Your task to perform on an android device: change keyboard looks Image 0: 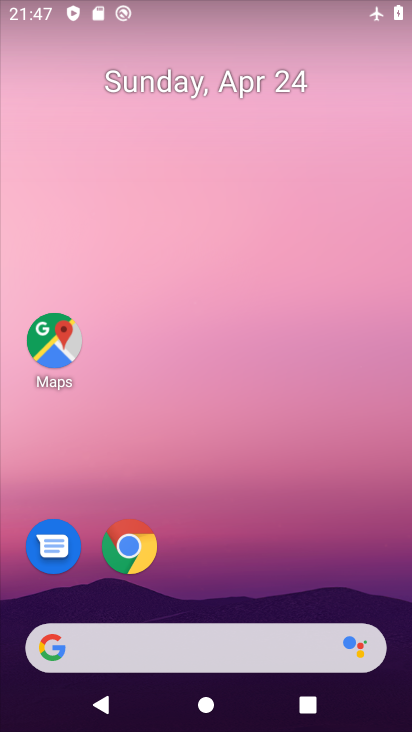
Step 0: click (288, 190)
Your task to perform on an android device: change keyboard looks Image 1: 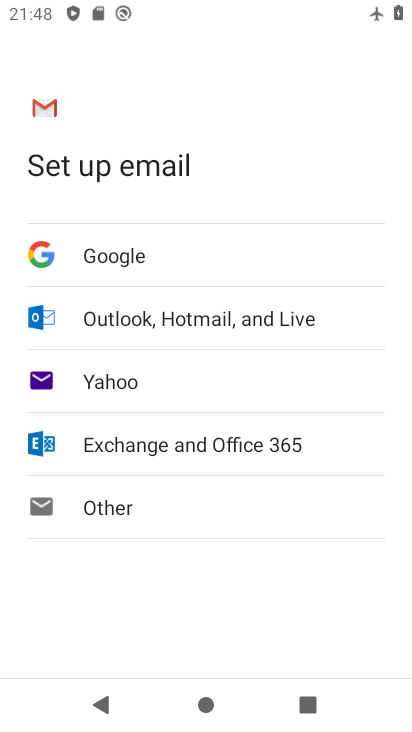
Step 1: press home button
Your task to perform on an android device: change keyboard looks Image 2: 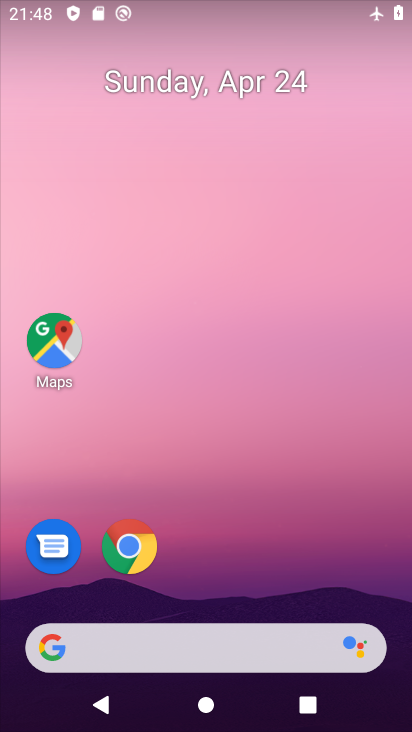
Step 2: drag from (251, 573) to (155, 79)
Your task to perform on an android device: change keyboard looks Image 3: 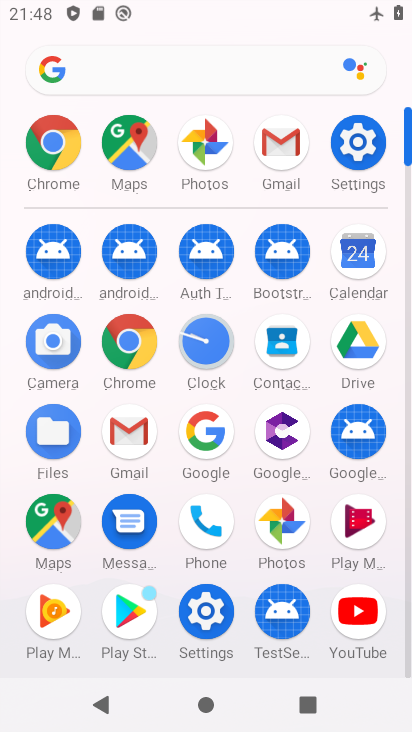
Step 3: click (360, 142)
Your task to perform on an android device: change keyboard looks Image 4: 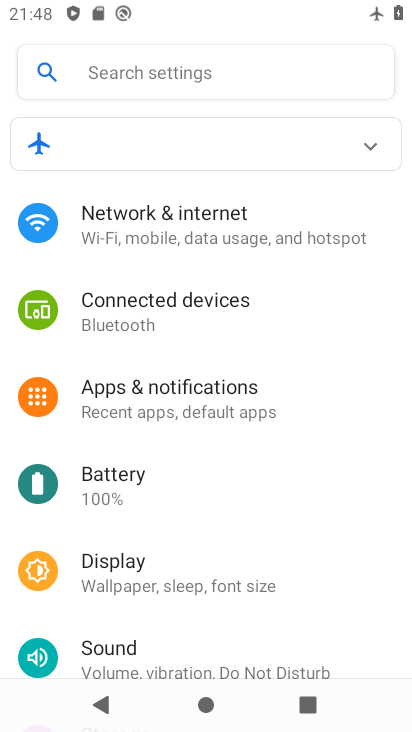
Step 4: drag from (212, 521) to (242, 220)
Your task to perform on an android device: change keyboard looks Image 5: 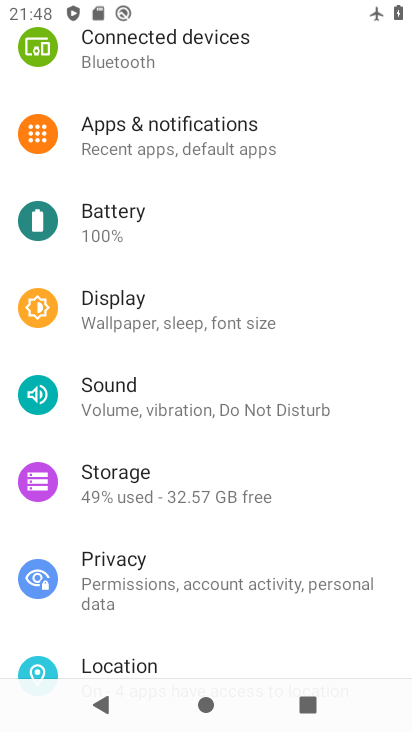
Step 5: drag from (202, 556) to (237, 165)
Your task to perform on an android device: change keyboard looks Image 6: 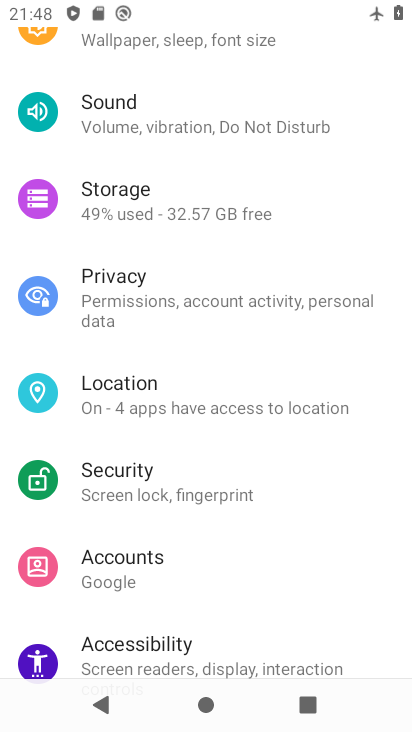
Step 6: drag from (156, 591) to (229, 218)
Your task to perform on an android device: change keyboard looks Image 7: 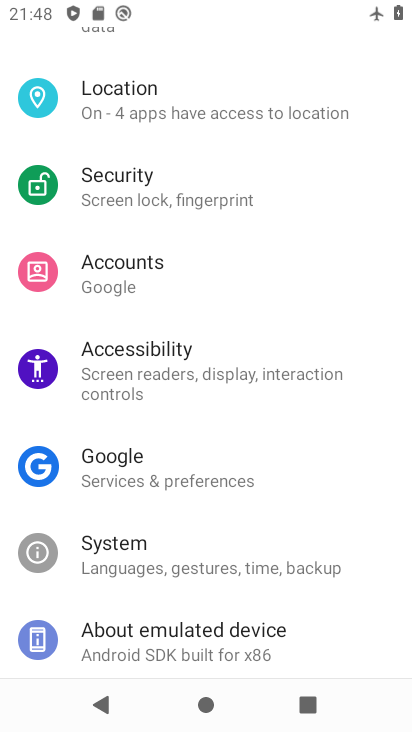
Step 7: click (160, 647)
Your task to perform on an android device: change keyboard looks Image 8: 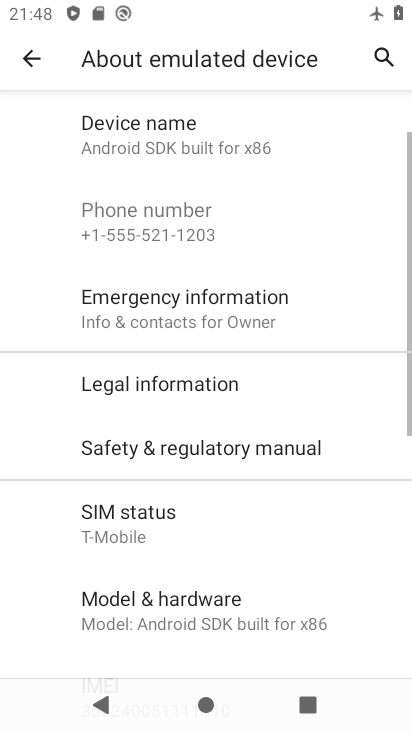
Step 8: click (35, 54)
Your task to perform on an android device: change keyboard looks Image 9: 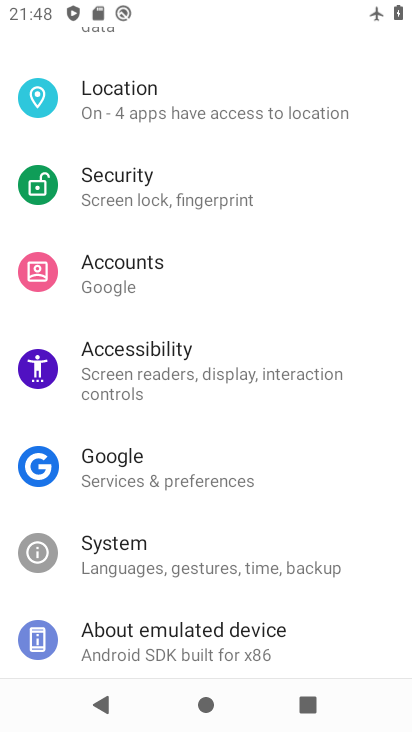
Step 9: click (145, 556)
Your task to perform on an android device: change keyboard looks Image 10: 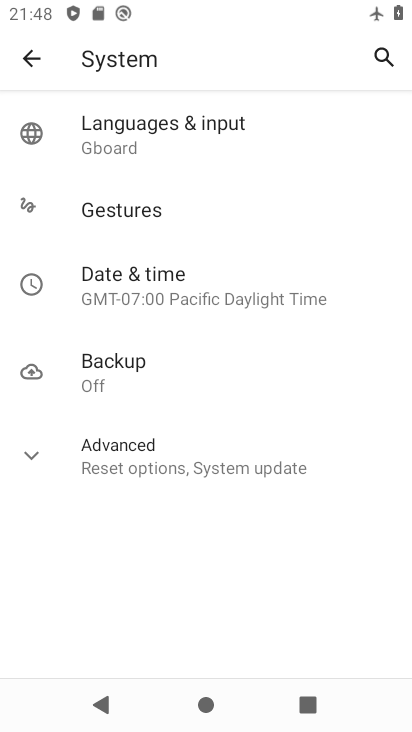
Step 10: click (185, 135)
Your task to perform on an android device: change keyboard looks Image 11: 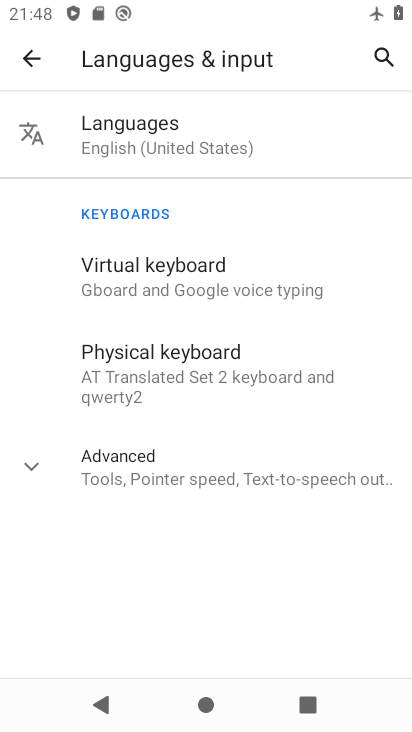
Step 11: click (210, 294)
Your task to perform on an android device: change keyboard looks Image 12: 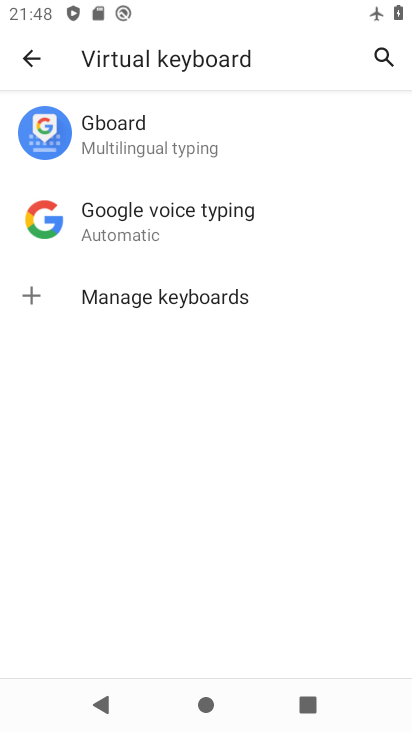
Step 12: click (195, 158)
Your task to perform on an android device: change keyboard looks Image 13: 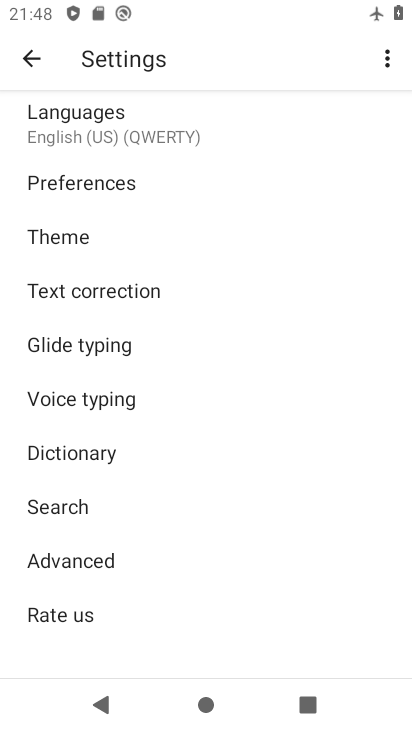
Step 13: click (117, 247)
Your task to perform on an android device: change keyboard looks Image 14: 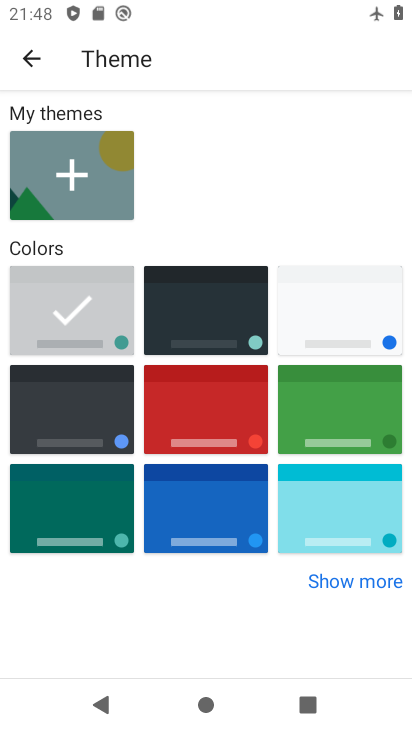
Step 14: click (253, 525)
Your task to perform on an android device: change keyboard looks Image 15: 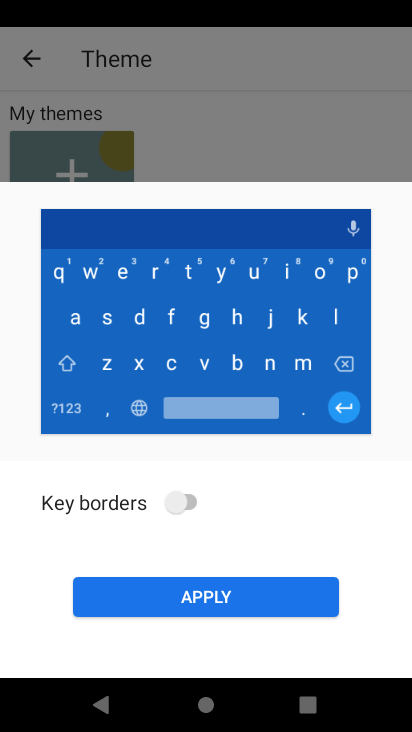
Step 15: click (190, 496)
Your task to perform on an android device: change keyboard looks Image 16: 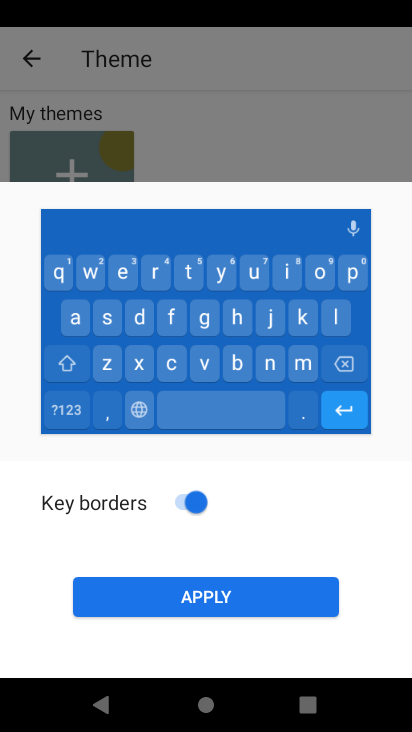
Step 16: click (266, 603)
Your task to perform on an android device: change keyboard looks Image 17: 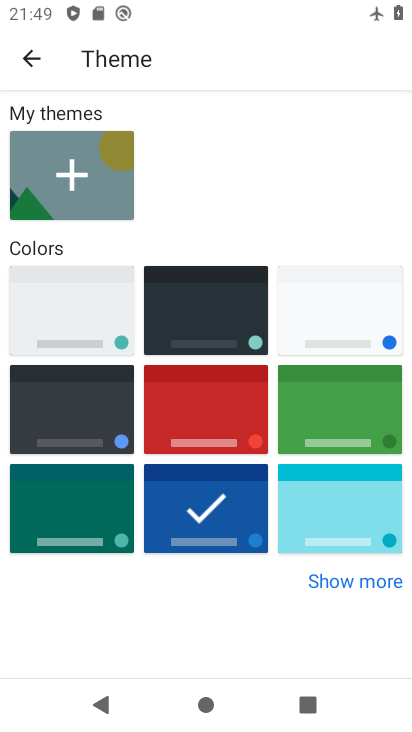
Step 17: task complete